Your task to perform on an android device: move an email to a new category in the gmail app Image 0: 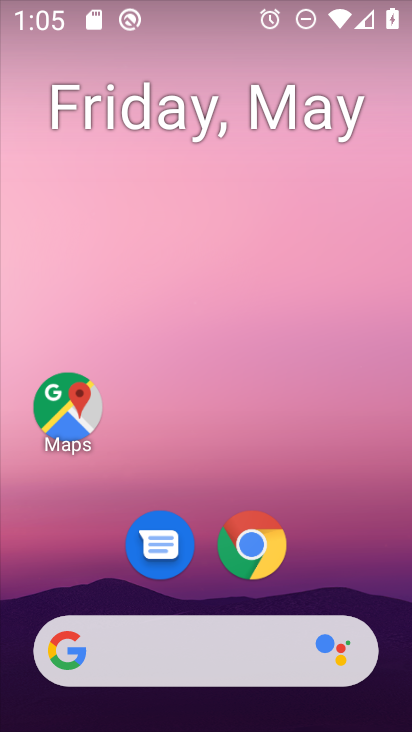
Step 0: drag from (330, 562) to (281, 188)
Your task to perform on an android device: move an email to a new category in the gmail app Image 1: 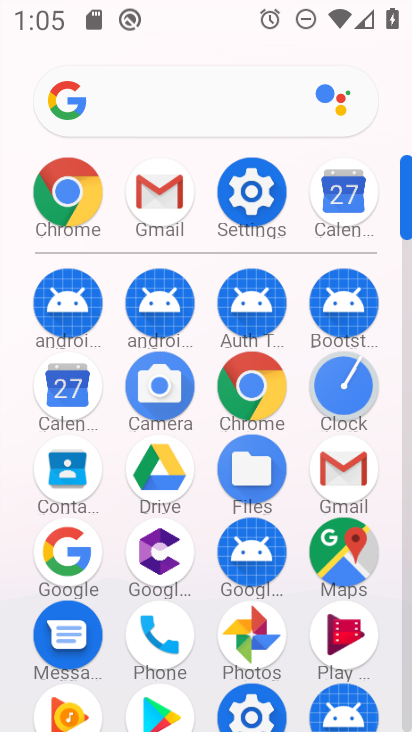
Step 1: click (347, 470)
Your task to perform on an android device: move an email to a new category in the gmail app Image 2: 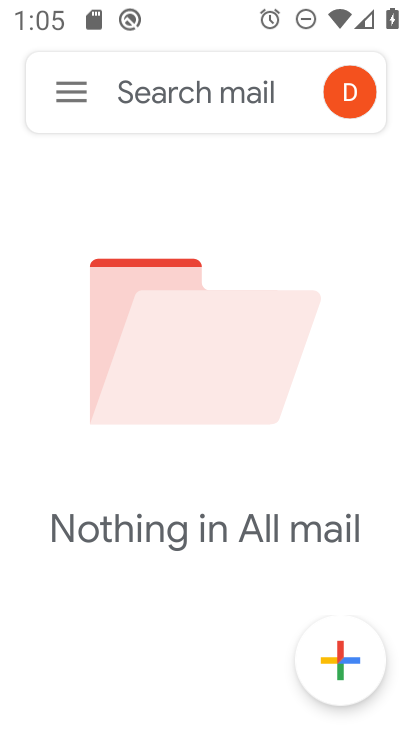
Step 2: click (72, 87)
Your task to perform on an android device: move an email to a new category in the gmail app Image 3: 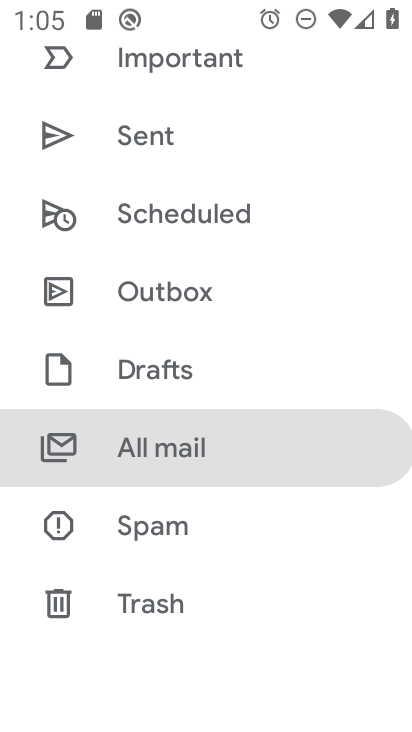
Step 3: click (162, 449)
Your task to perform on an android device: move an email to a new category in the gmail app Image 4: 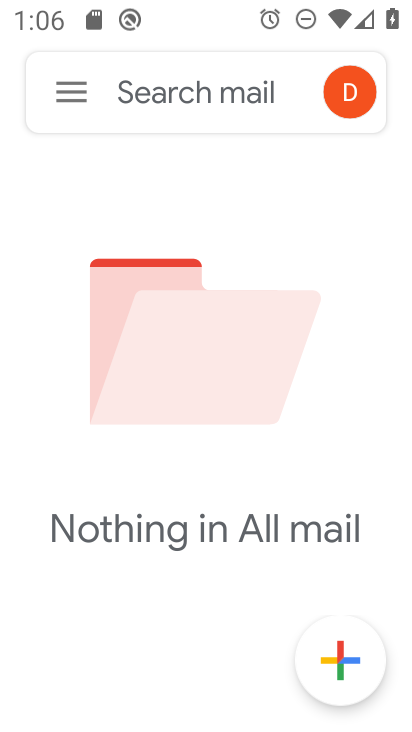
Step 4: task complete